Your task to perform on an android device: turn off notifications settings in the gmail app Image 0: 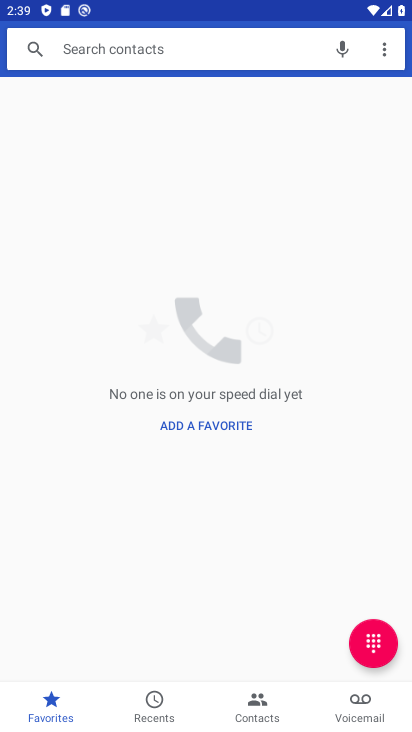
Step 0: press home button
Your task to perform on an android device: turn off notifications settings in the gmail app Image 1: 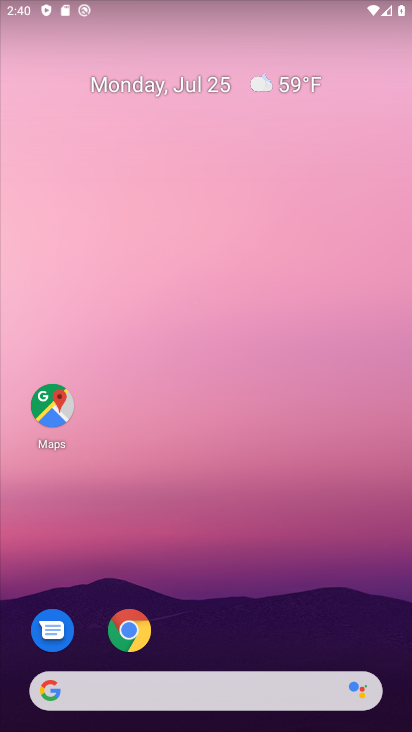
Step 1: drag from (241, 613) to (287, 8)
Your task to perform on an android device: turn off notifications settings in the gmail app Image 2: 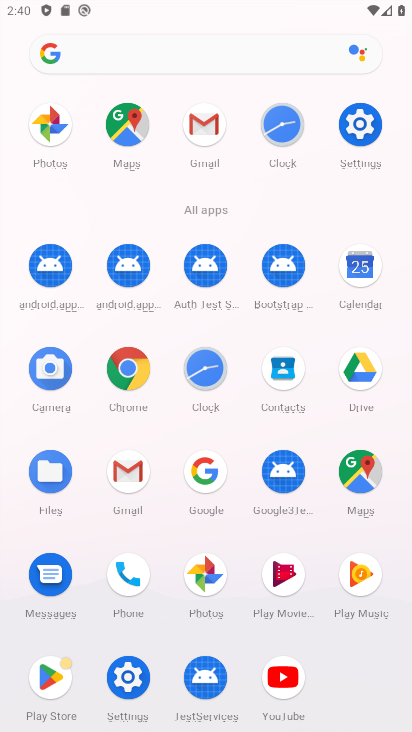
Step 2: click (134, 454)
Your task to perform on an android device: turn off notifications settings in the gmail app Image 3: 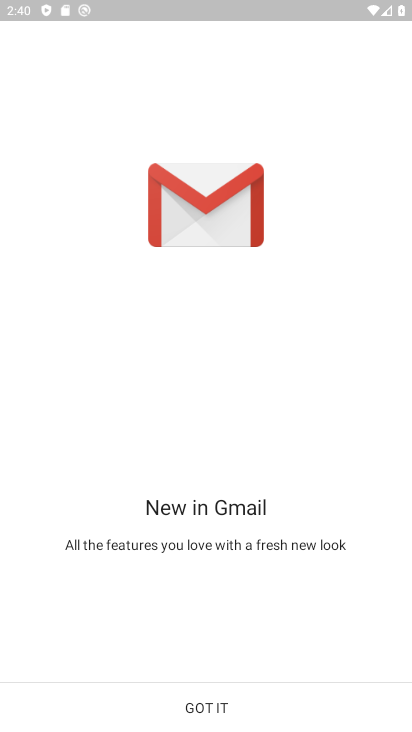
Step 3: click (180, 699)
Your task to perform on an android device: turn off notifications settings in the gmail app Image 4: 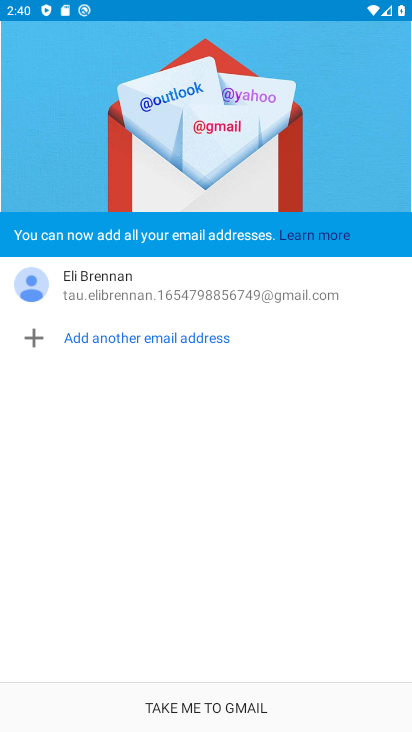
Step 4: click (225, 716)
Your task to perform on an android device: turn off notifications settings in the gmail app Image 5: 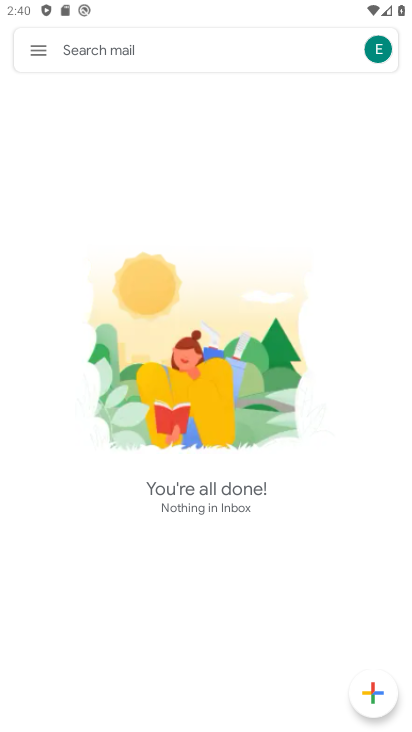
Step 5: click (34, 41)
Your task to perform on an android device: turn off notifications settings in the gmail app Image 6: 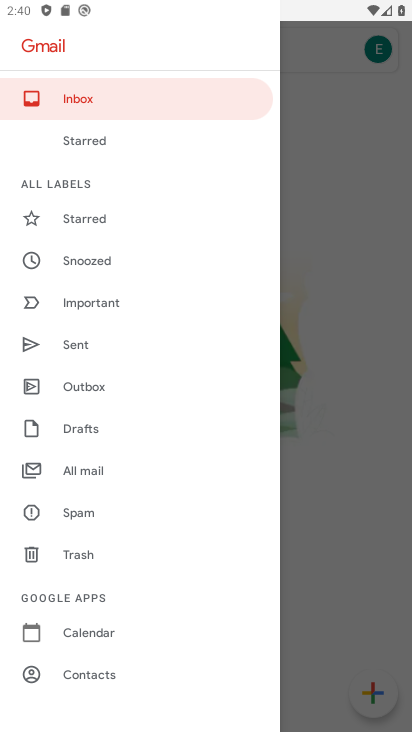
Step 6: drag from (81, 646) to (31, 247)
Your task to perform on an android device: turn off notifications settings in the gmail app Image 7: 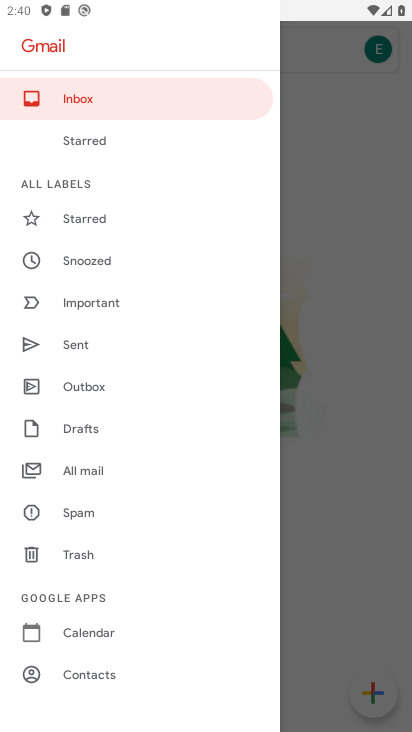
Step 7: drag from (140, 677) to (139, 144)
Your task to perform on an android device: turn off notifications settings in the gmail app Image 8: 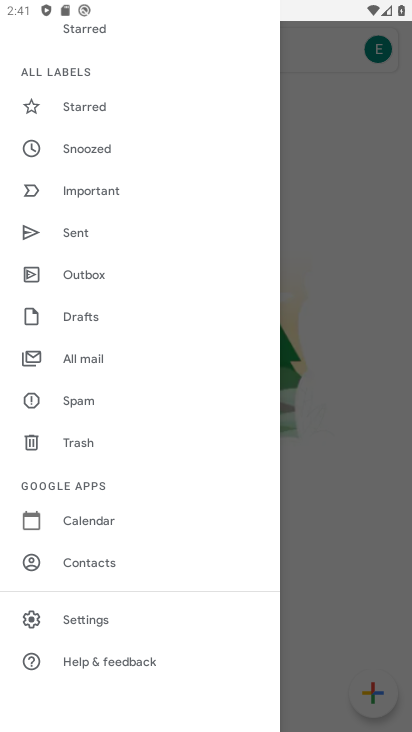
Step 8: click (73, 616)
Your task to perform on an android device: turn off notifications settings in the gmail app Image 9: 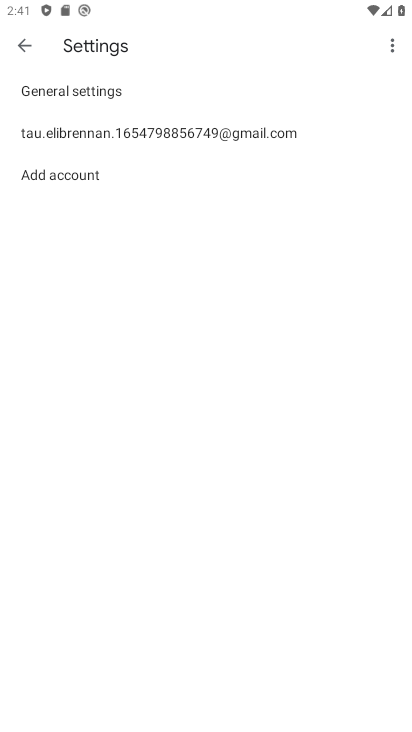
Step 9: click (168, 124)
Your task to perform on an android device: turn off notifications settings in the gmail app Image 10: 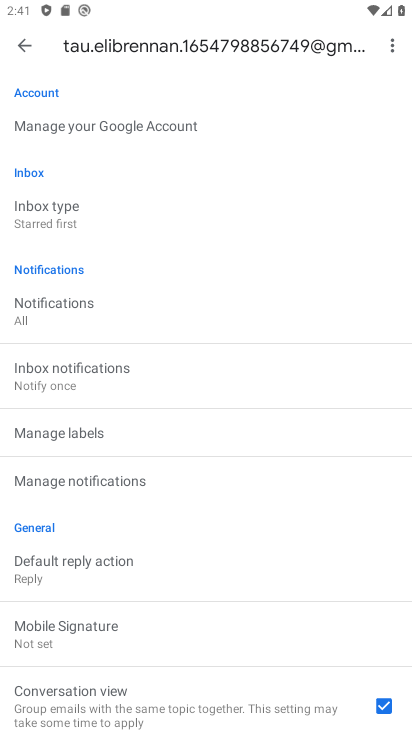
Step 10: click (136, 487)
Your task to perform on an android device: turn off notifications settings in the gmail app Image 11: 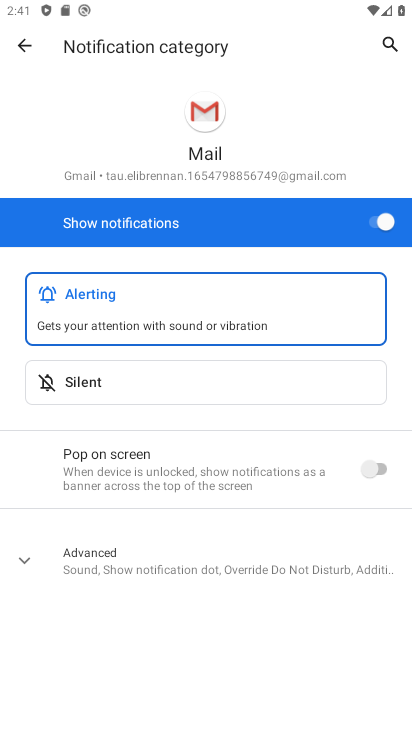
Step 11: click (381, 232)
Your task to perform on an android device: turn off notifications settings in the gmail app Image 12: 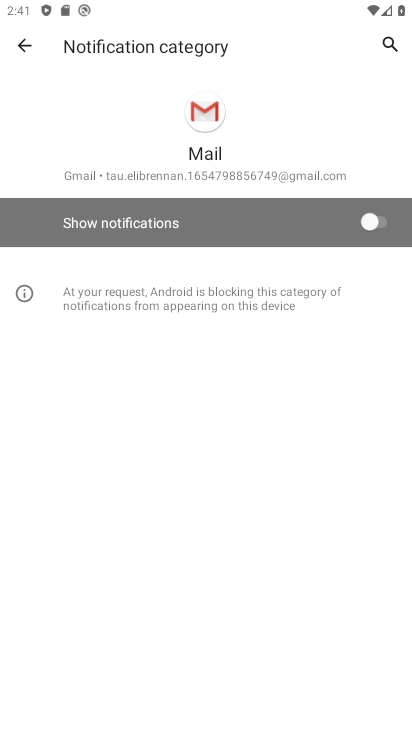
Step 12: task complete